Your task to perform on an android device: Go to battery settings Image 0: 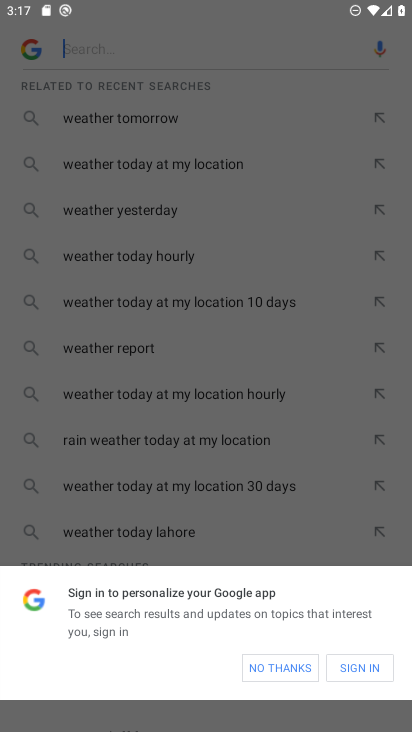
Step 0: press home button
Your task to perform on an android device: Go to battery settings Image 1: 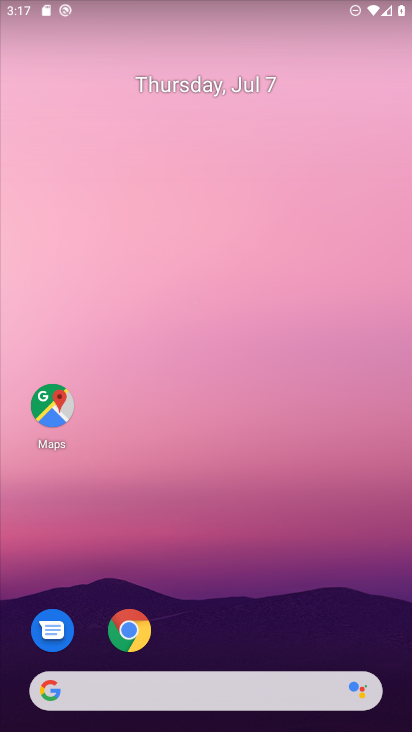
Step 1: drag from (363, 620) to (383, 139)
Your task to perform on an android device: Go to battery settings Image 2: 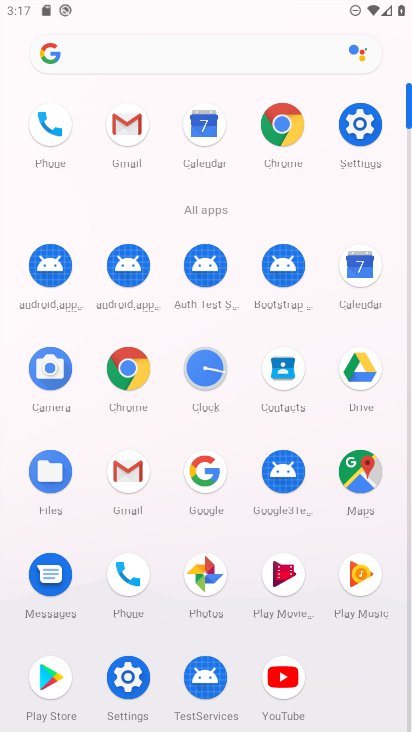
Step 2: click (360, 134)
Your task to perform on an android device: Go to battery settings Image 3: 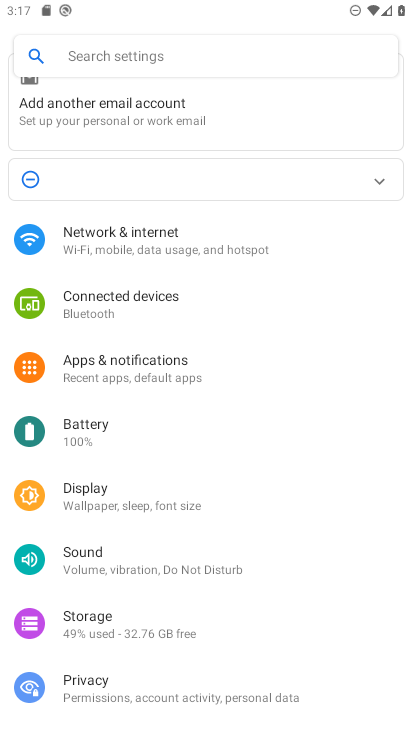
Step 3: drag from (330, 434) to (333, 360)
Your task to perform on an android device: Go to battery settings Image 4: 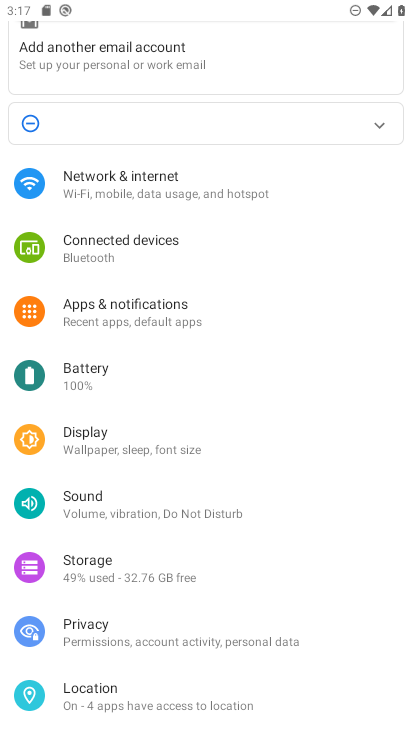
Step 4: drag from (332, 411) to (328, 343)
Your task to perform on an android device: Go to battery settings Image 5: 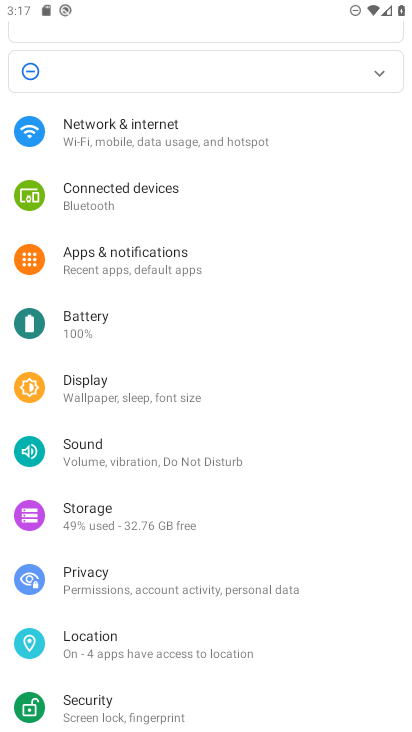
Step 5: drag from (329, 434) to (330, 370)
Your task to perform on an android device: Go to battery settings Image 6: 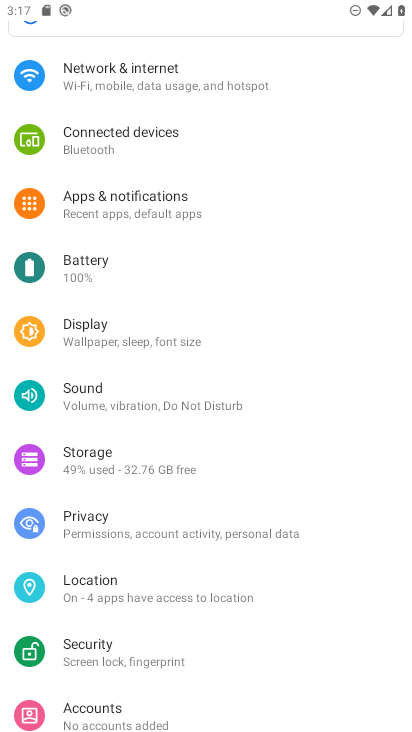
Step 6: click (205, 279)
Your task to perform on an android device: Go to battery settings Image 7: 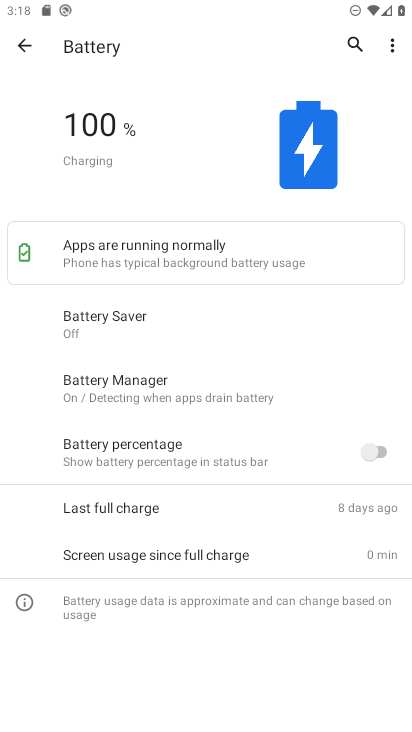
Step 7: task complete